Your task to perform on an android device: toggle sleep mode Image 0: 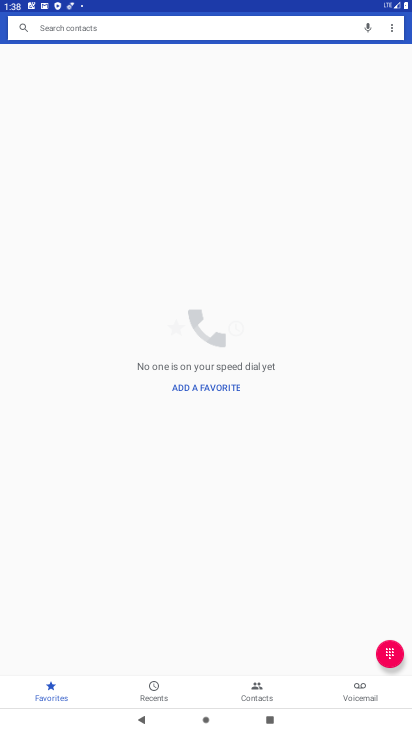
Step 0: press home button
Your task to perform on an android device: toggle sleep mode Image 1: 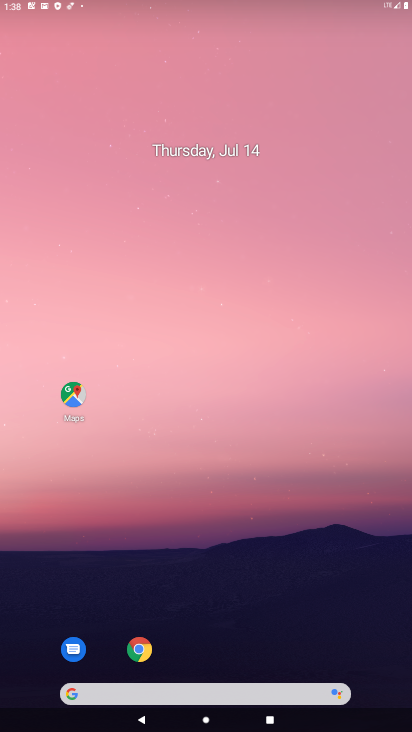
Step 1: drag from (388, 636) to (273, 126)
Your task to perform on an android device: toggle sleep mode Image 2: 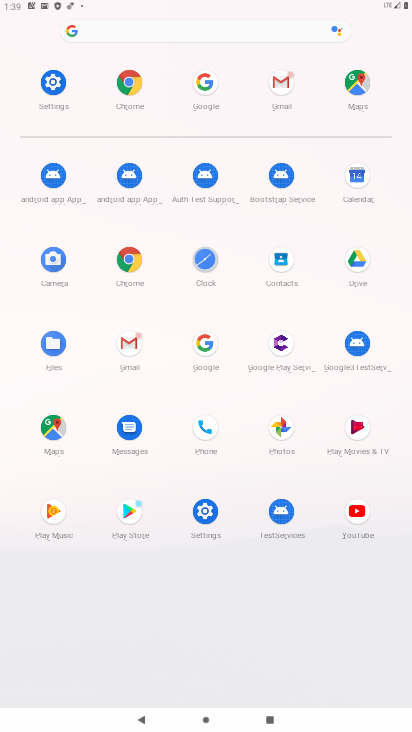
Step 2: click (208, 513)
Your task to perform on an android device: toggle sleep mode Image 3: 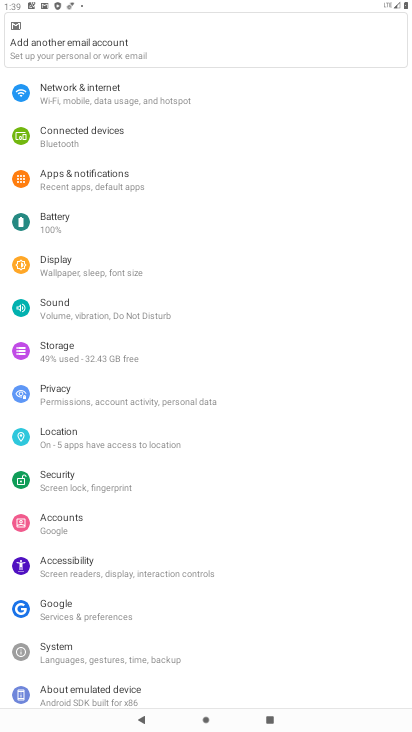
Step 3: task complete